Your task to perform on an android device: turn off airplane mode Image 0: 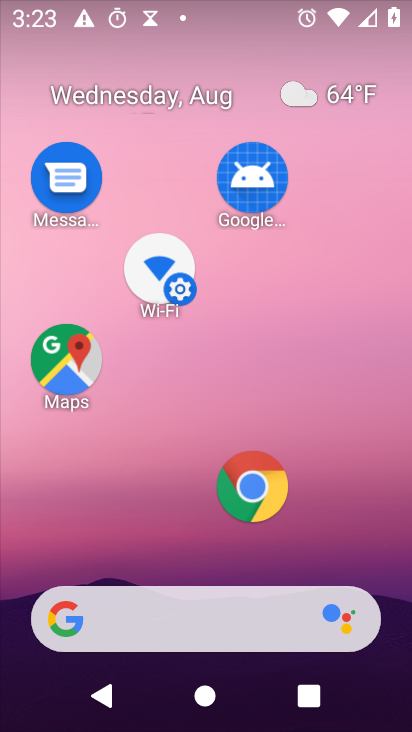
Step 0: press home button
Your task to perform on an android device: turn off airplane mode Image 1: 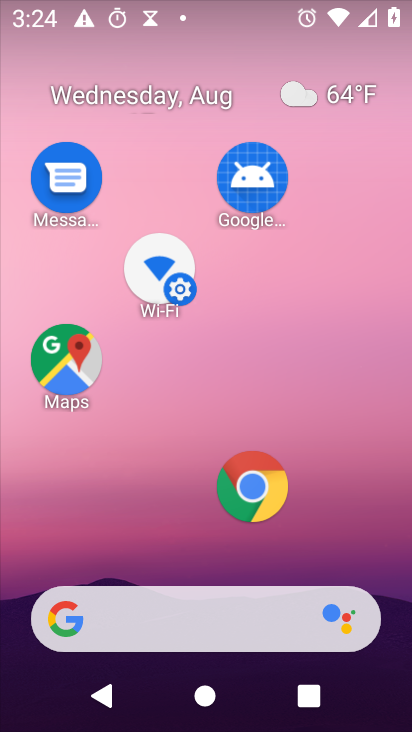
Step 1: drag from (232, 0) to (250, 700)
Your task to perform on an android device: turn off airplane mode Image 2: 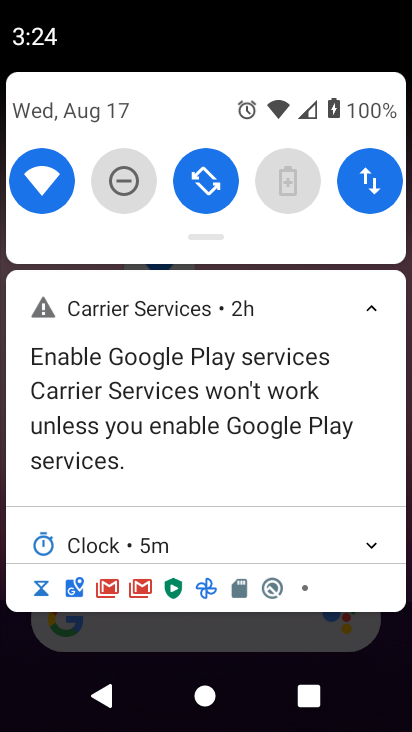
Step 2: drag from (211, 235) to (164, 657)
Your task to perform on an android device: turn off airplane mode Image 3: 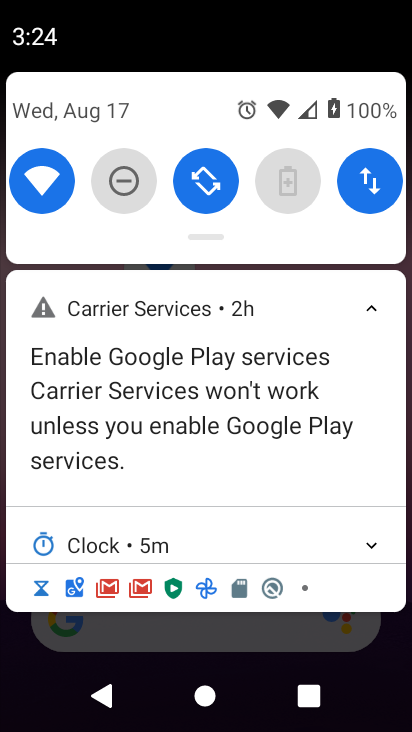
Step 3: drag from (208, 223) to (219, 647)
Your task to perform on an android device: turn off airplane mode Image 4: 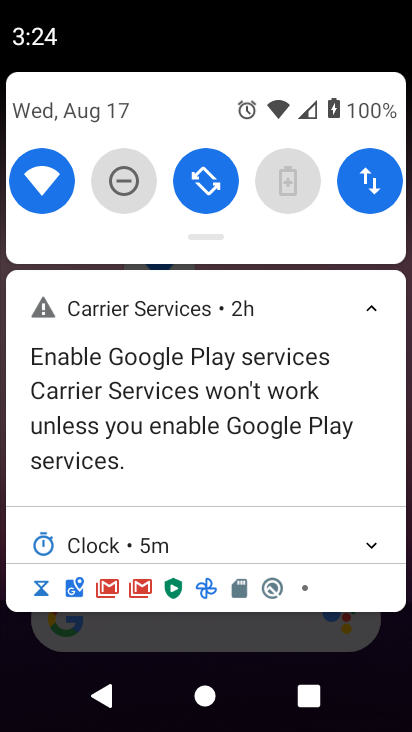
Step 4: drag from (362, 233) to (20, 193)
Your task to perform on an android device: turn off airplane mode Image 5: 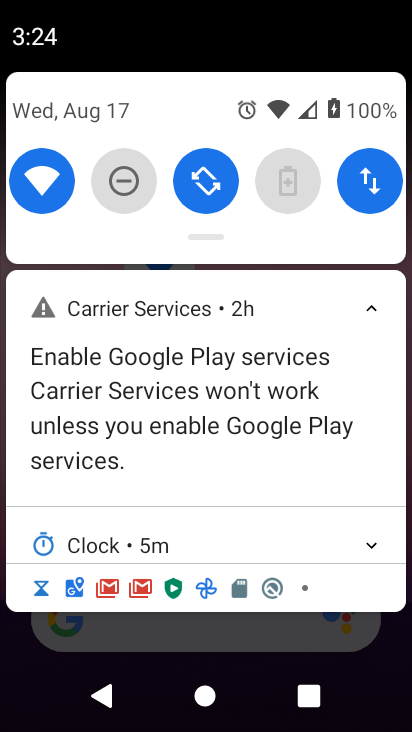
Step 5: drag from (207, 240) to (218, 564)
Your task to perform on an android device: turn off airplane mode Image 6: 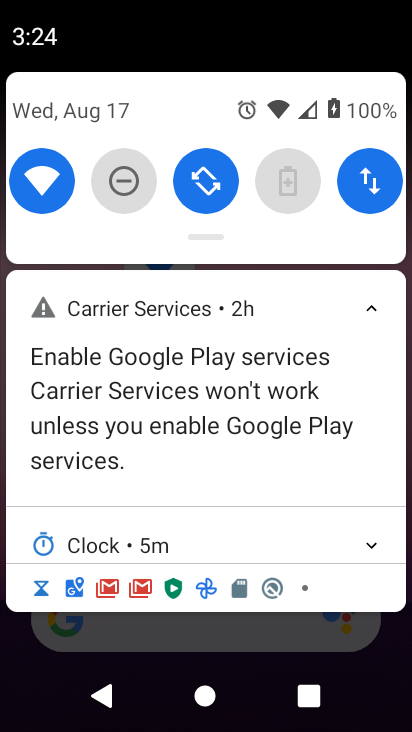
Step 6: drag from (268, 621) to (255, 84)
Your task to perform on an android device: turn off airplane mode Image 7: 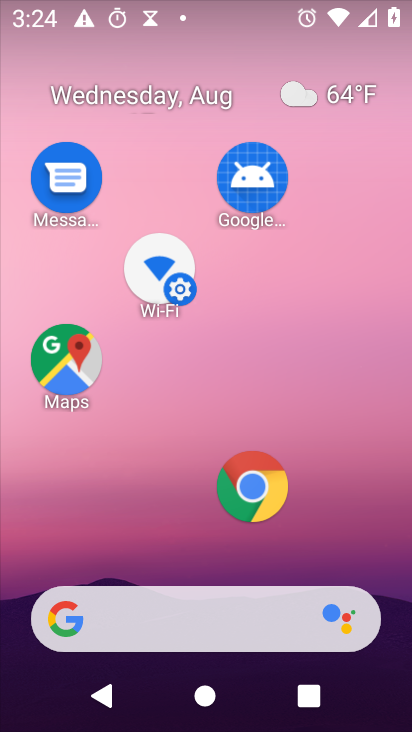
Step 7: drag from (316, 542) to (399, 0)
Your task to perform on an android device: turn off airplane mode Image 8: 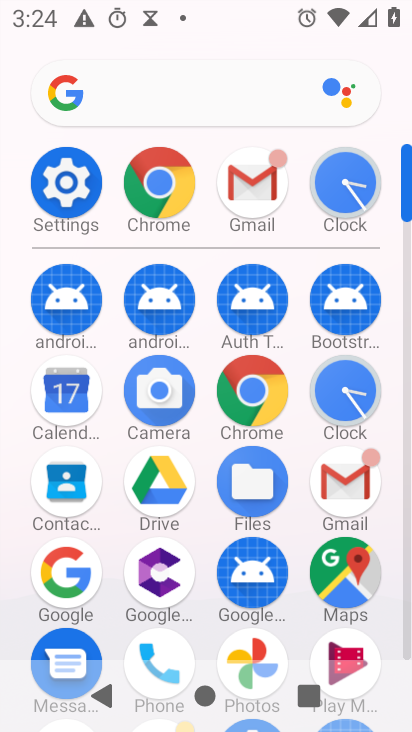
Step 8: click (80, 182)
Your task to perform on an android device: turn off airplane mode Image 9: 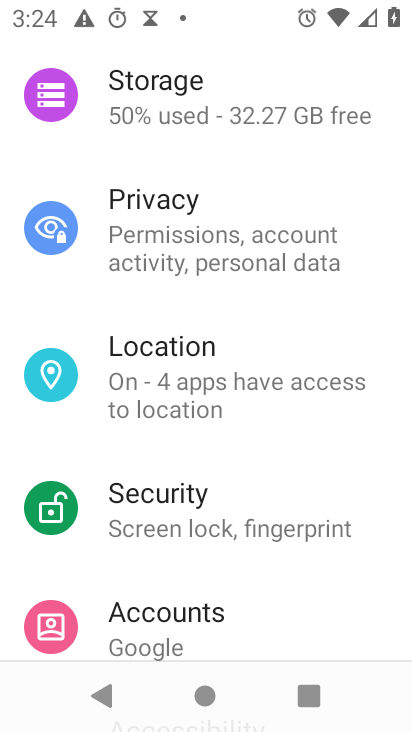
Step 9: drag from (256, 166) to (242, 715)
Your task to perform on an android device: turn off airplane mode Image 10: 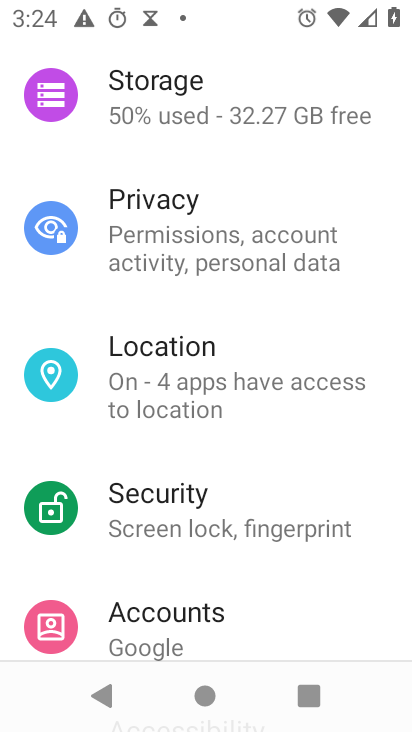
Step 10: drag from (284, 63) to (296, 616)
Your task to perform on an android device: turn off airplane mode Image 11: 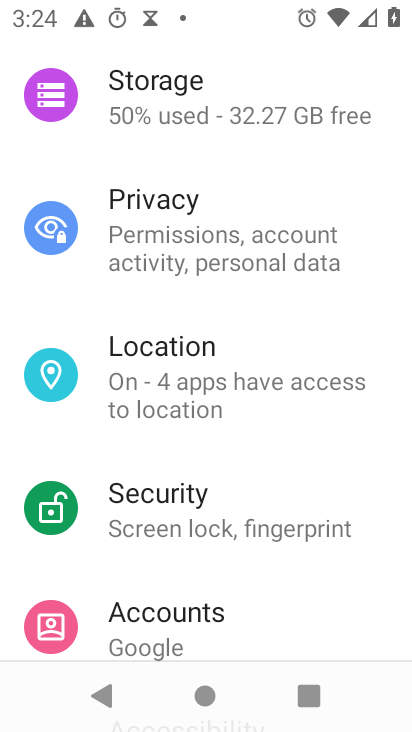
Step 11: drag from (257, 173) to (250, 650)
Your task to perform on an android device: turn off airplane mode Image 12: 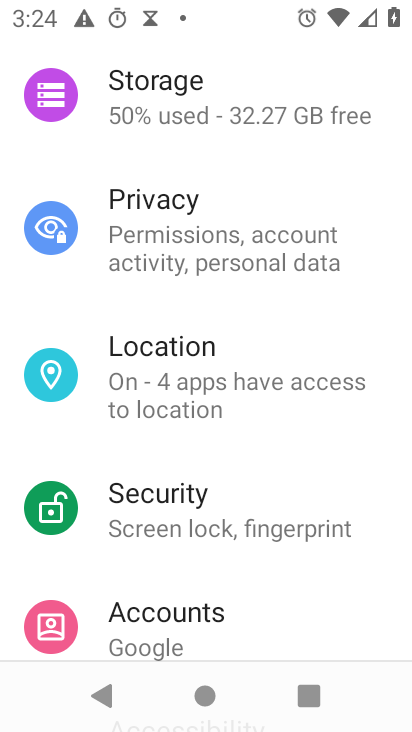
Step 12: drag from (295, 206) to (356, 638)
Your task to perform on an android device: turn off airplane mode Image 13: 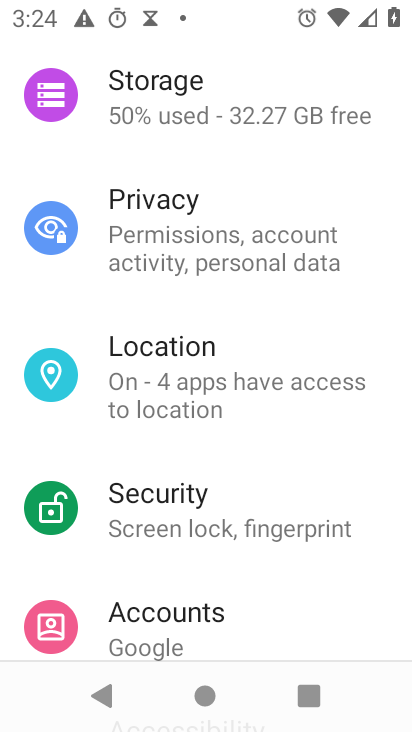
Step 13: drag from (269, 174) to (237, 731)
Your task to perform on an android device: turn off airplane mode Image 14: 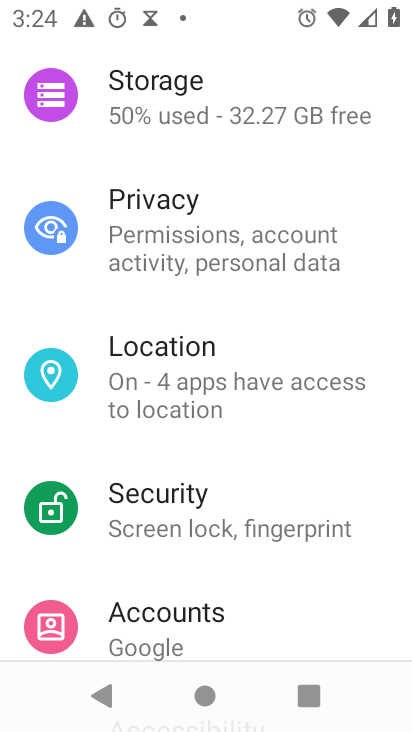
Step 14: drag from (317, 159) to (234, 730)
Your task to perform on an android device: turn off airplane mode Image 15: 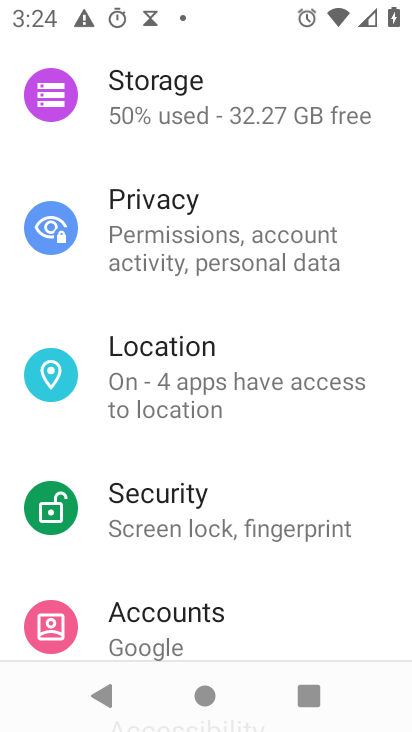
Step 15: drag from (226, 154) to (262, 717)
Your task to perform on an android device: turn off airplane mode Image 16: 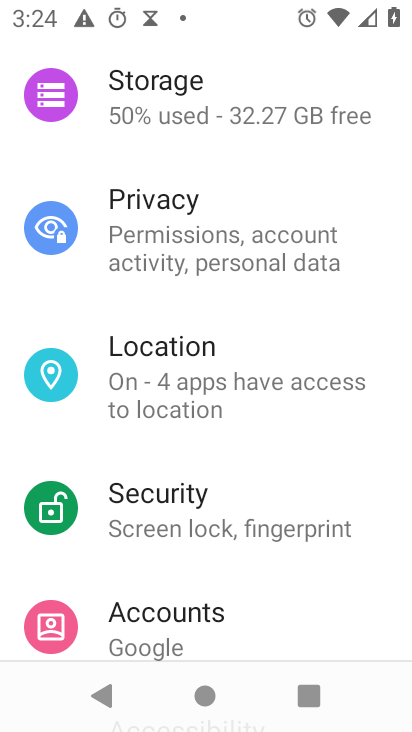
Step 16: drag from (273, 67) to (384, 711)
Your task to perform on an android device: turn off airplane mode Image 17: 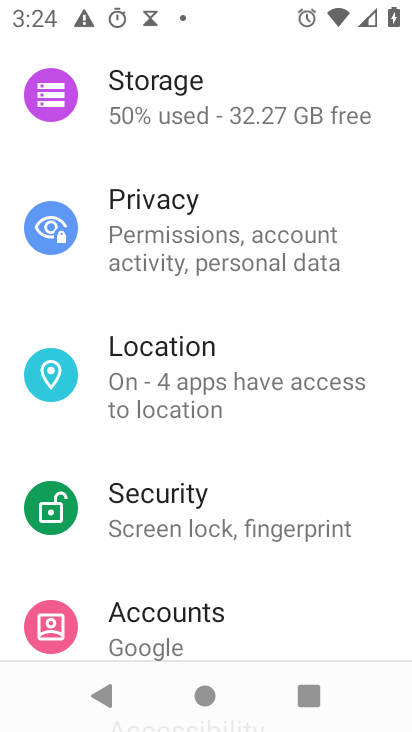
Step 17: click (251, 62)
Your task to perform on an android device: turn off airplane mode Image 18: 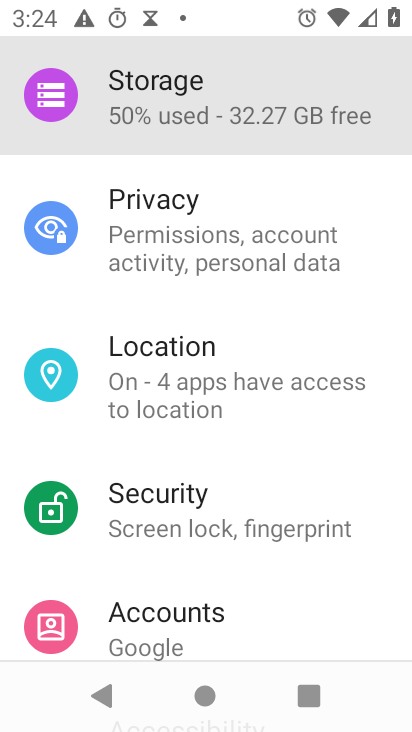
Step 18: task complete